Your task to perform on an android device: change the clock display to digital Image 0: 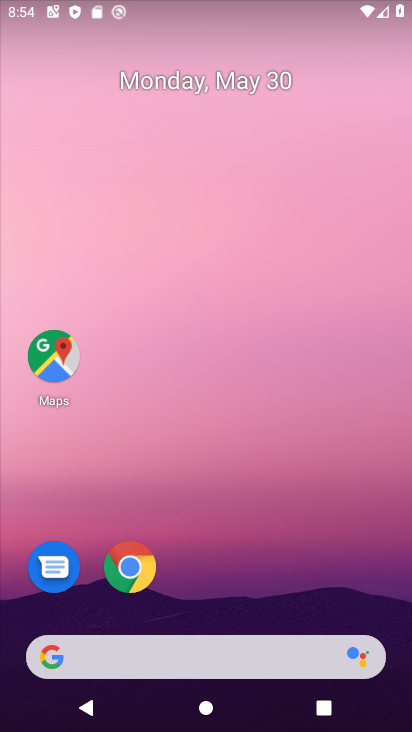
Step 0: drag from (216, 605) to (288, 95)
Your task to perform on an android device: change the clock display to digital Image 1: 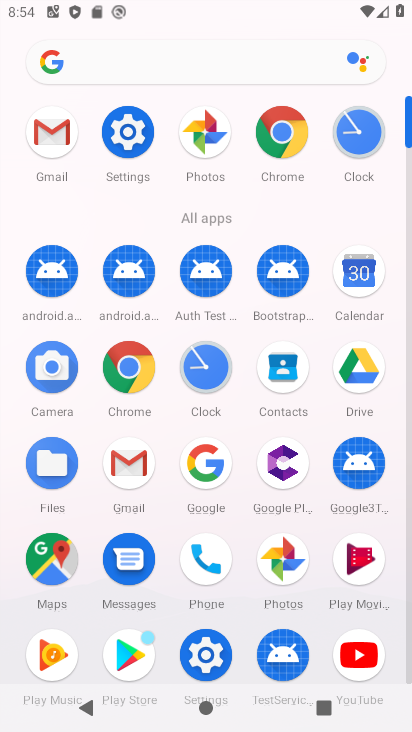
Step 1: click (359, 106)
Your task to perform on an android device: change the clock display to digital Image 2: 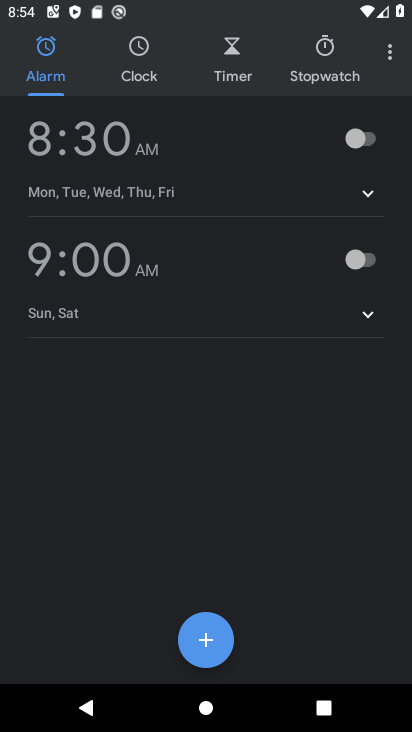
Step 2: click (383, 55)
Your task to perform on an android device: change the clock display to digital Image 3: 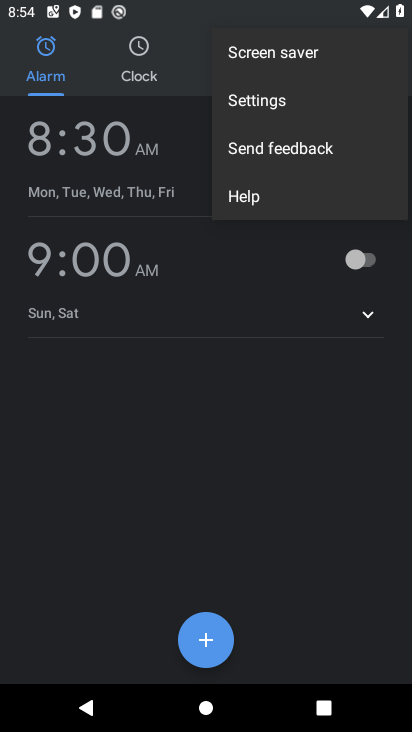
Step 3: click (273, 114)
Your task to perform on an android device: change the clock display to digital Image 4: 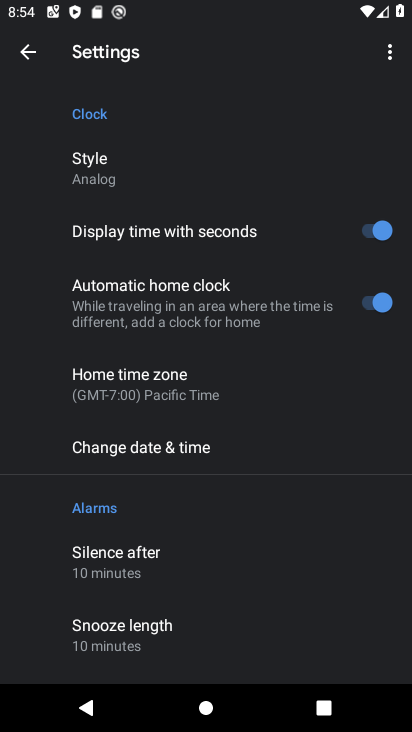
Step 4: click (129, 193)
Your task to perform on an android device: change the clock display to digital Image 5: 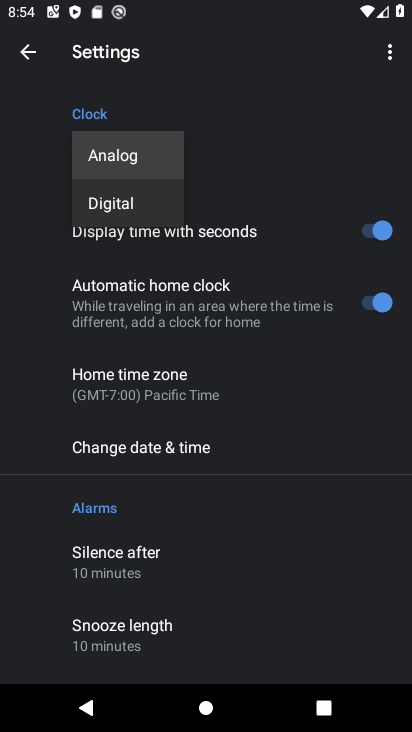
Step 5: click (133, 197)
Your task to perform on an android device: change the clock display to digital Image 6: 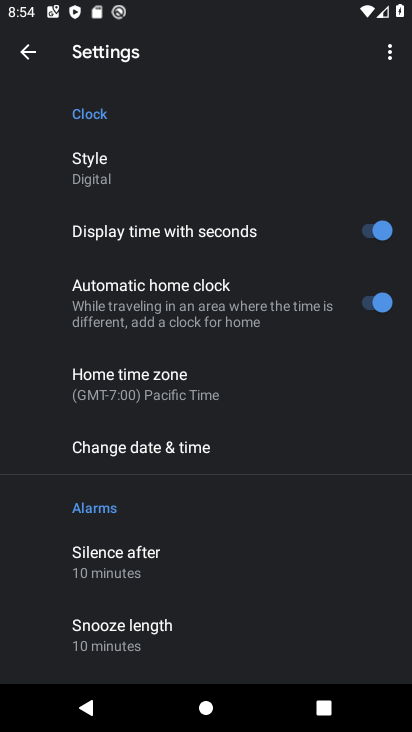
Step 6: task complete